Your task to perform on an android device: turn on notifications settings in the gmail app Image 0: 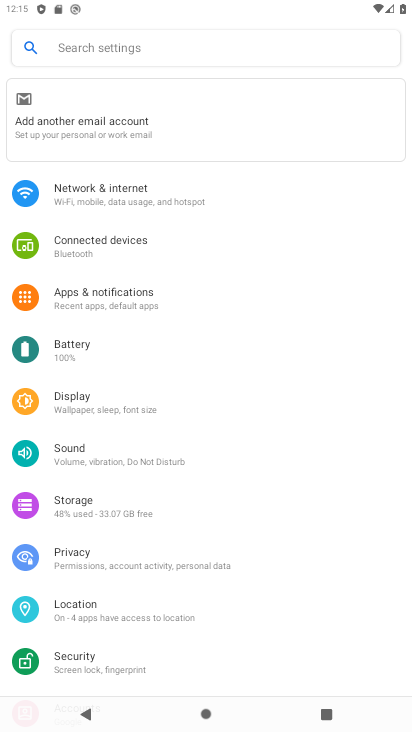
Step 0: press back button
Your task to perform on an android device: turn on notifications settings in the gmail app Image 1: 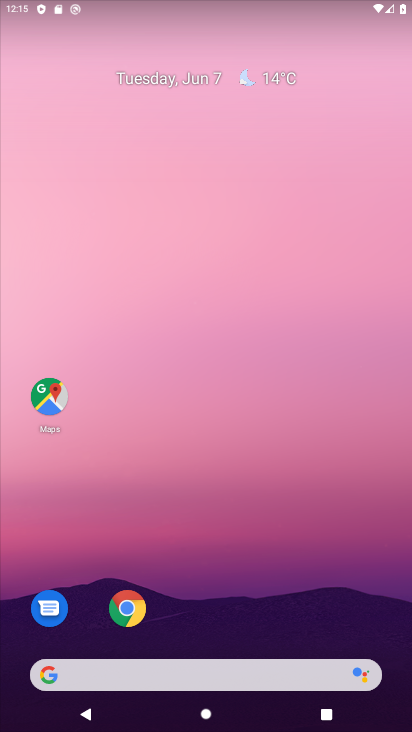
Step 1: drag from (271, 585) to (199, 8)
Your task to perform on an android device: turn on notifications settings in the gmail app Image 2: 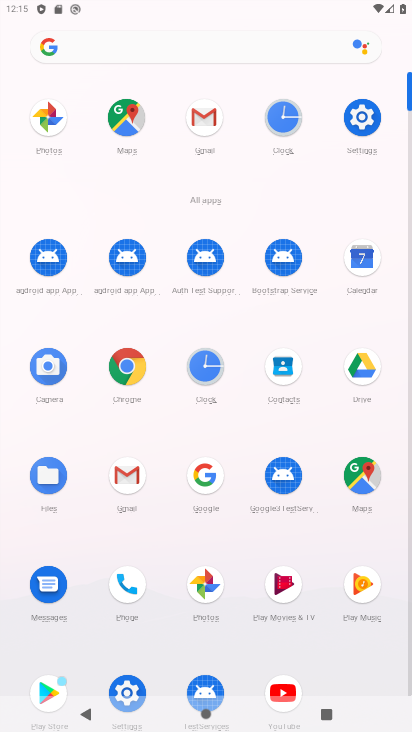
Step 2: drag from (18, 580) to (20, 212)
Your task to perform on an android device: turn on notifications settings in the gmail app Image 3: 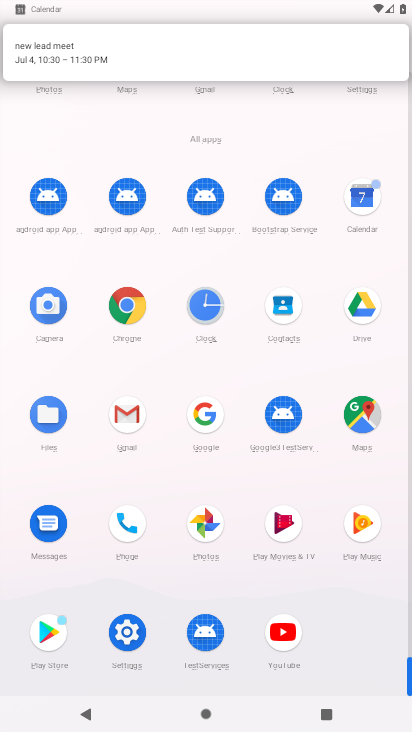
Step 3: click (126, 408)
Your task to perform on an android device: turn on notifications settings in the gmail app Image 4: 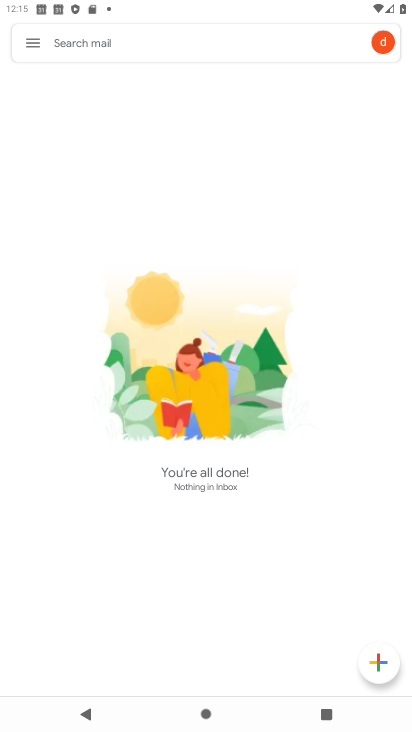
Step 4: click (25, 41)
Your task to perform on an android device: turn on notifications settings in the gmail app Image 5: 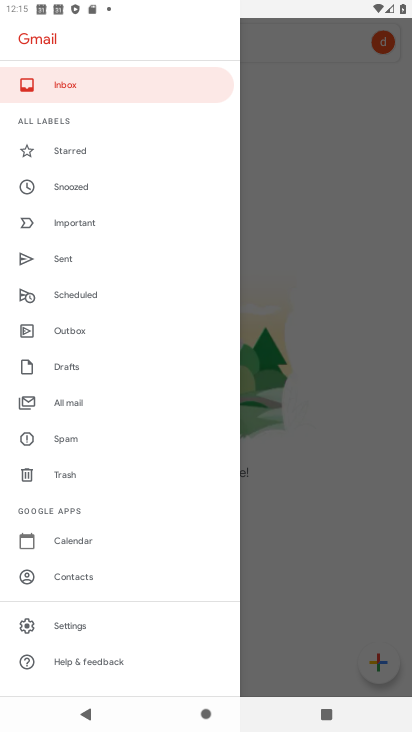
Step 5: drag from (114, 557) to (113, 108)
Your task to perform on an android device: turn on notifications settings in the gmail app Image 6: 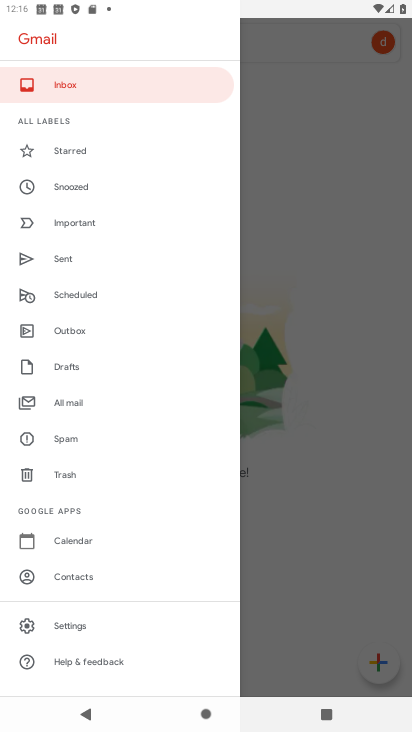
Step 6: drag from (125, 528) to (129, 164)
Your task to perform on an android device: turn on notifications settings in the gmail app Image 7: 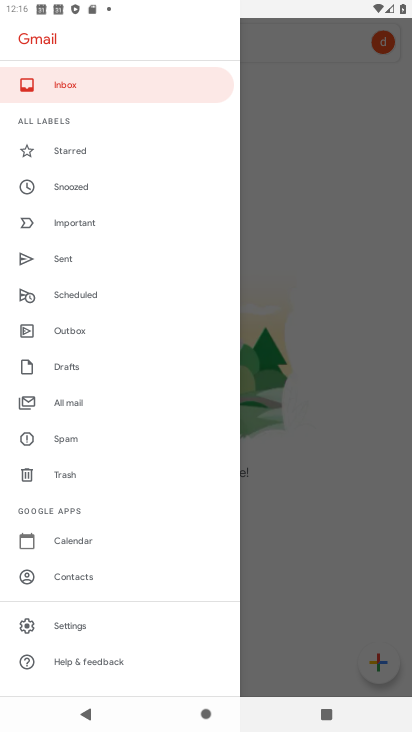
Step 7: click (71, 627)
Your task to perform on an android device: turn on notifications settings in the gmail app Image 8: 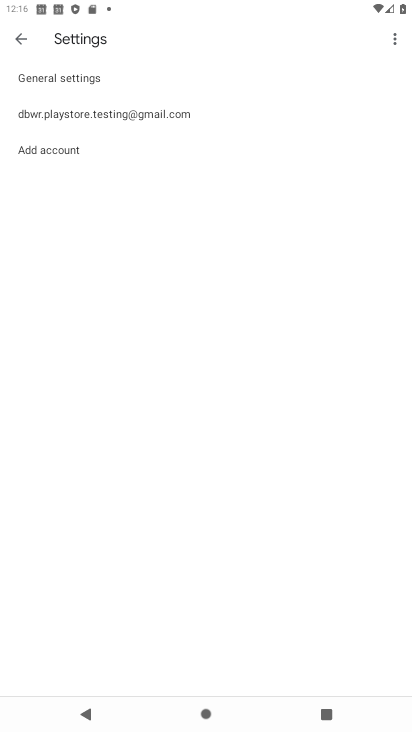
Step 8: click (106, 115)
Your task to perform on an android device: turn on notifications settings in the gmail app Image 9: 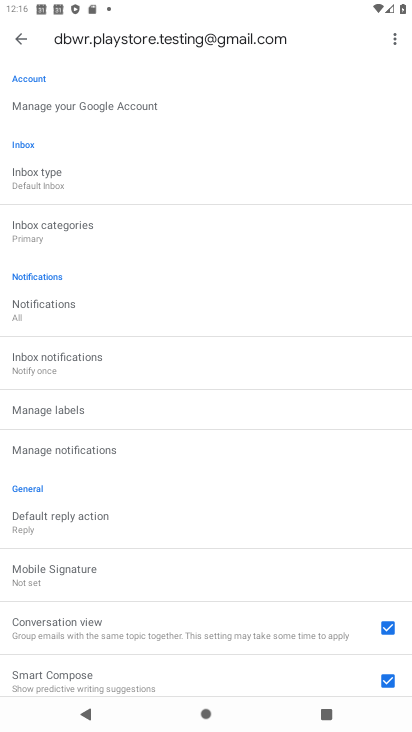
Step 9: click (93, 435)
Your task to perform on an android device: turn on notifications settings in the gmail app Image 10: 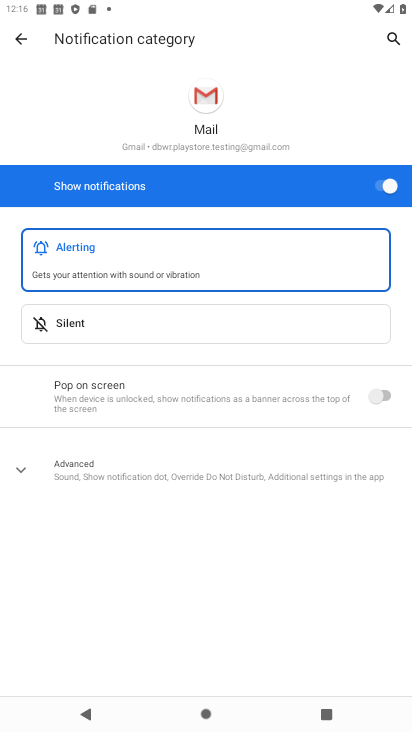
Step 10: click (34, 473)
Your task to perform on an android device: turn on notifications settings in the gmail app Image 11: 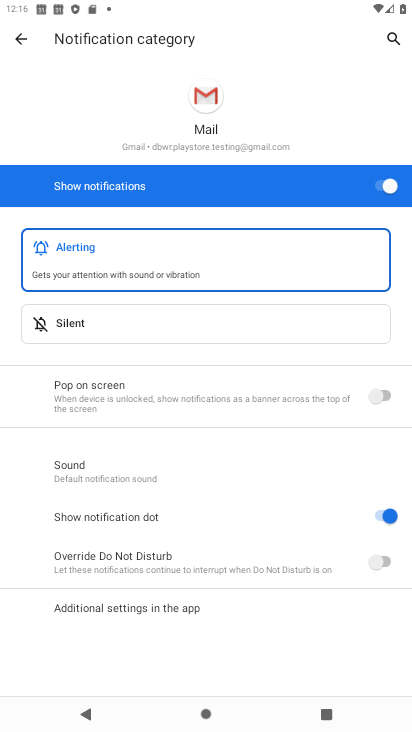
Step 11: task complete